Your task to perform on an android device: Search for sushi restaurants on Maps Image 0: 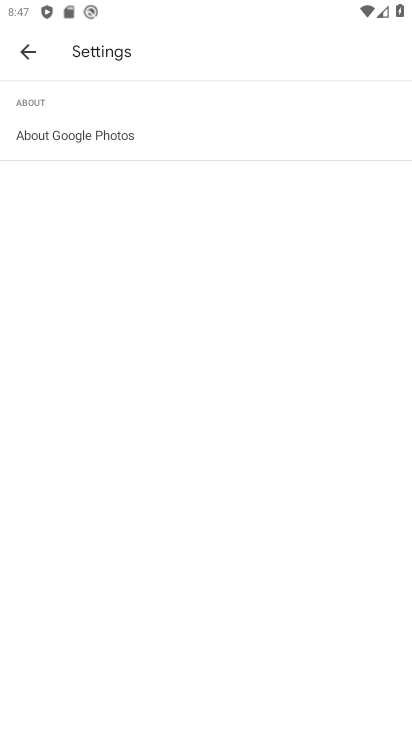
Step 0: press home button
Your task to perform on an android device: Search for sushi restaurants on Maps Image 1: 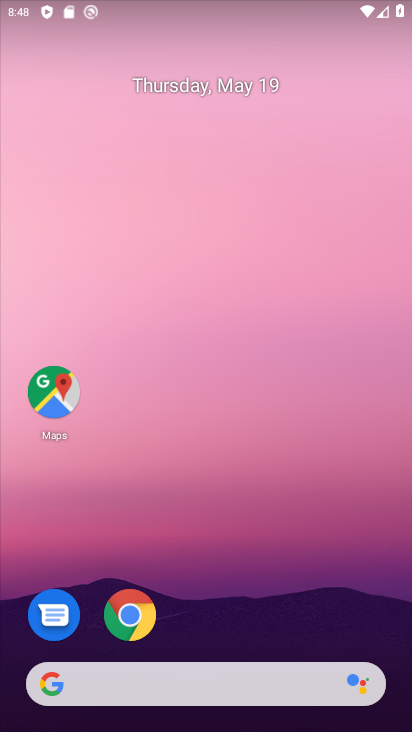
Step 1: click (42, 397)
Your task to perform on an android device: Search for sushi restaurants on Maps Image 2: 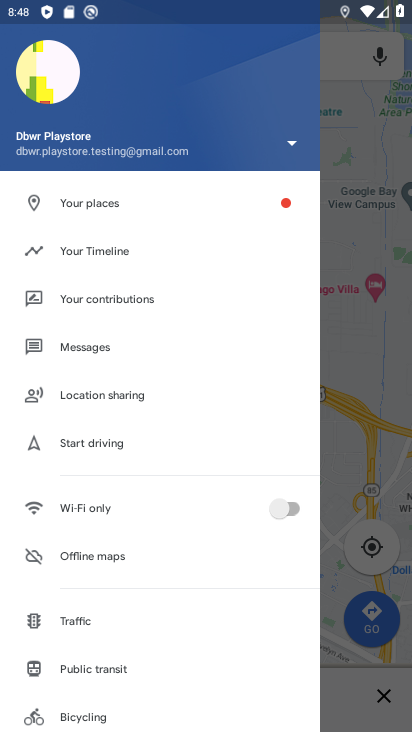
Step 2: click (343, 218)
Your task to perform on an android device: Search for sushi restaurants on Maps Image 3: 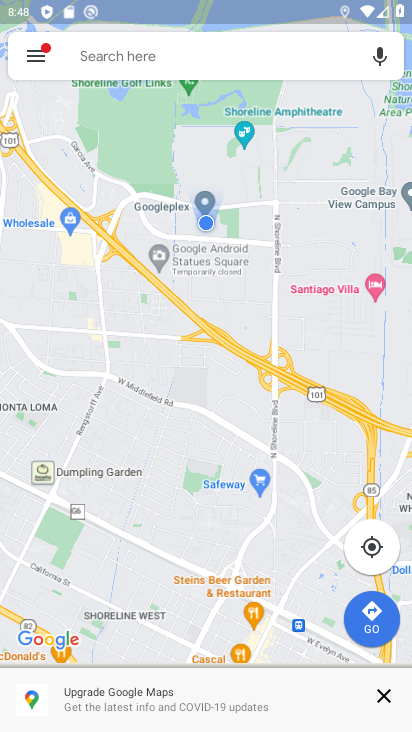
Step 3: click (97, 72)
Your task to perform on an android device: Search for sushi restaurants on Maps Image 4: 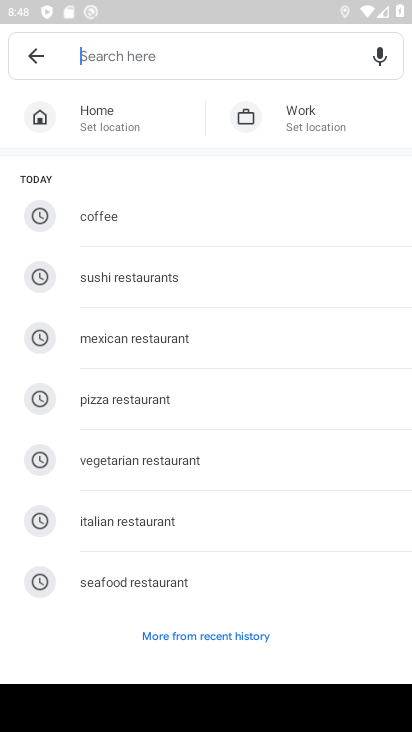
Step 4: click (259, 52)
Your task to perform on an android device: Search for sushi restaurants on Maps Image 5: 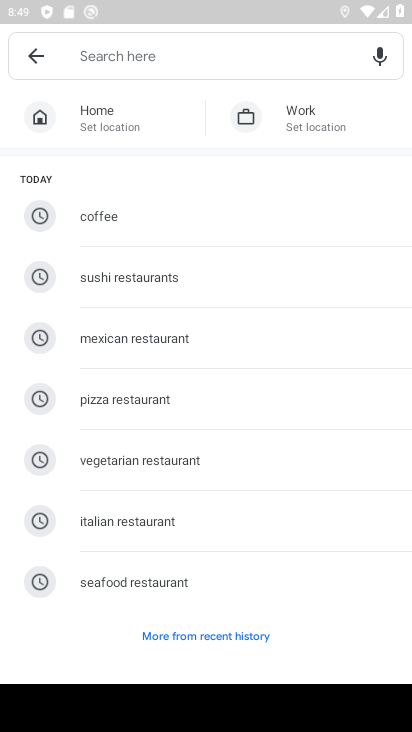
Step 5: type "sushi restaurants "
Your task to perform on an android device: Search for sushi restaurants on Maps Image 6: 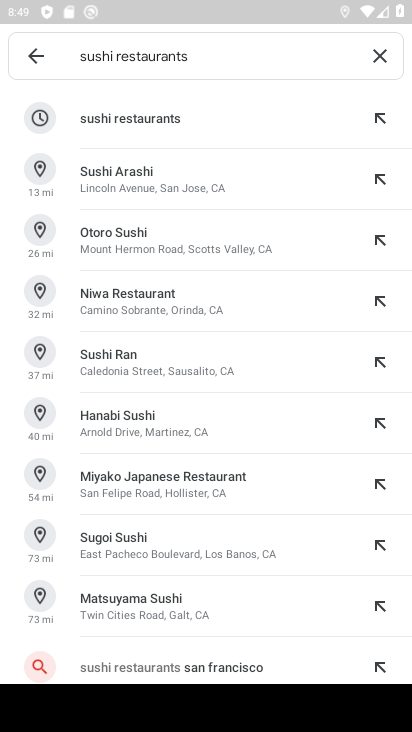
Step 6: click (258, 118)
Your task to perform on an android device: Search for sushi restaurants on Maps Image 7: 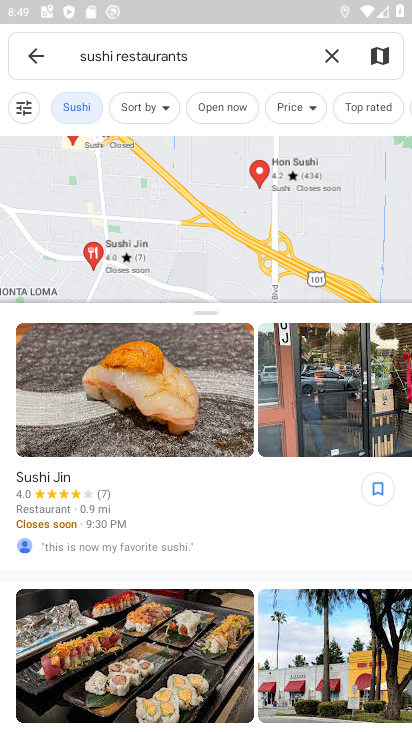
Step 7: task complete